Your task to perform on an android device: Go to location settings Image 0: 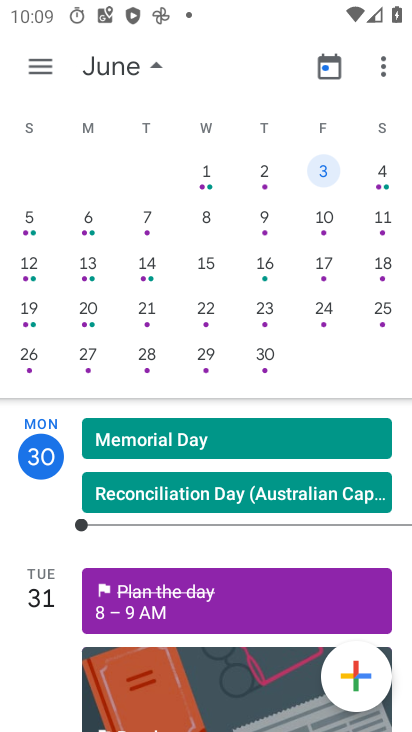
Step 0: press home button
Your task to perform on an android device: Go to location settings Image 1: 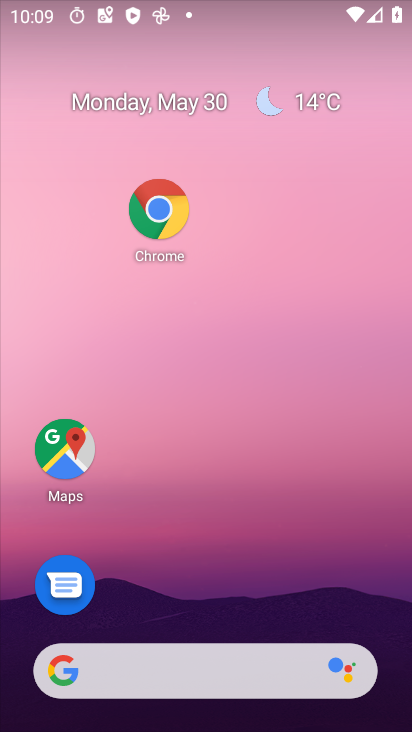
Step 1: drag from (221, 582) to (285, 97)
Your task to perform on an android device: Go to location settings Image 2: 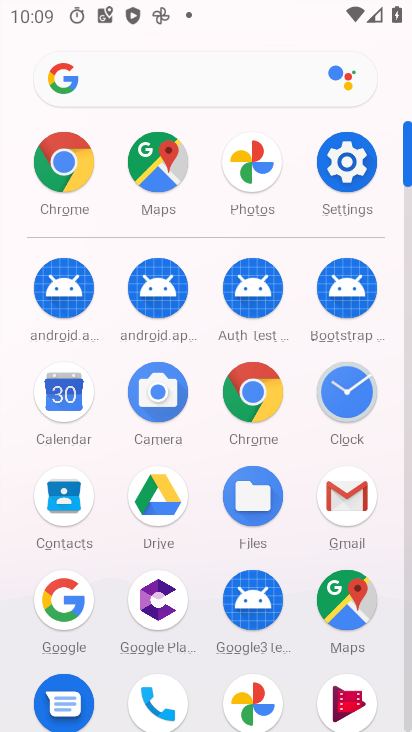
Step 2: click (342, 152)
Your task to perform on an android device: Go to location settings Image 3: 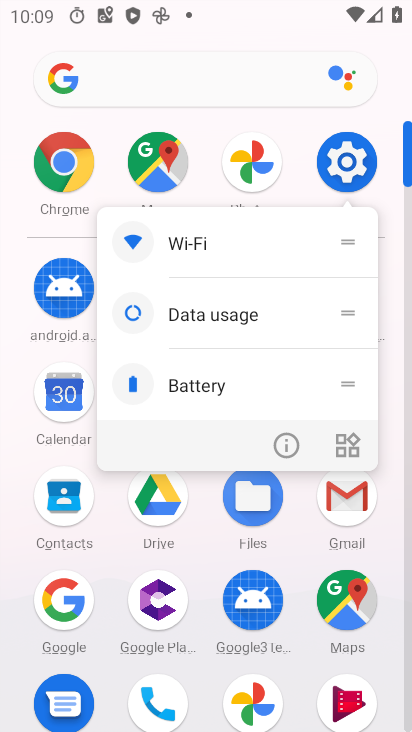
Step 3: click (292, 439)
Your task to perform on an android device: Go to location settings Image 4: 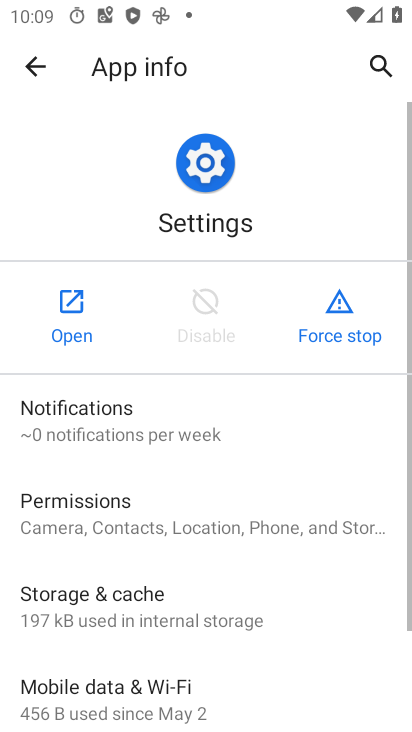
Step 4: click (40, 332)
Your task to perform on an android device: Go to location settings Image 5: 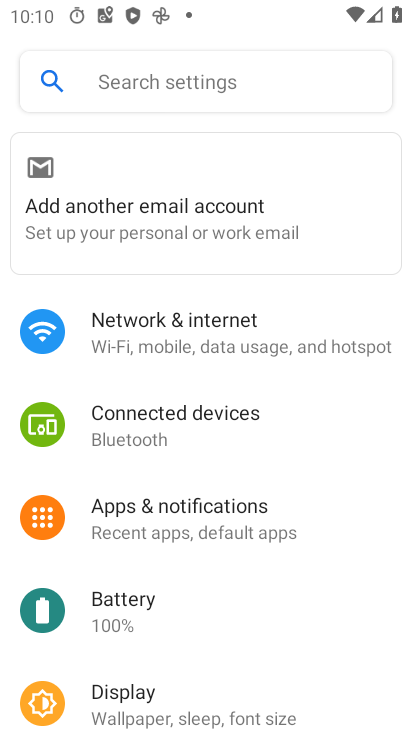
Step 5: drag from (208, 571) to (287, 173)
Your task to perform on an android device: Go to location settings Image 6: 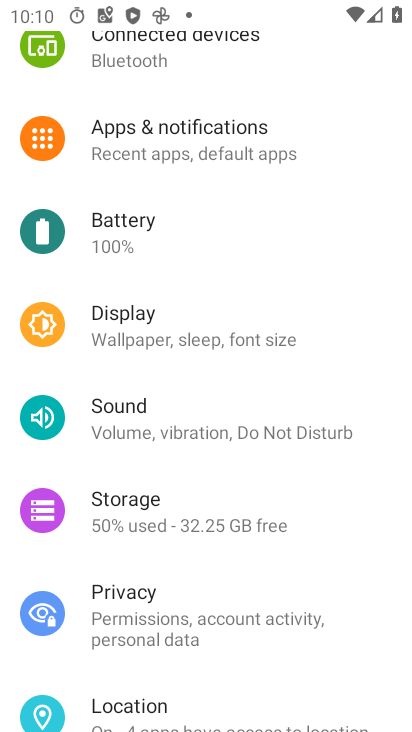
Step 6: click (166, 706)
Your task to perform on an android device: Go to location settings Image 7: 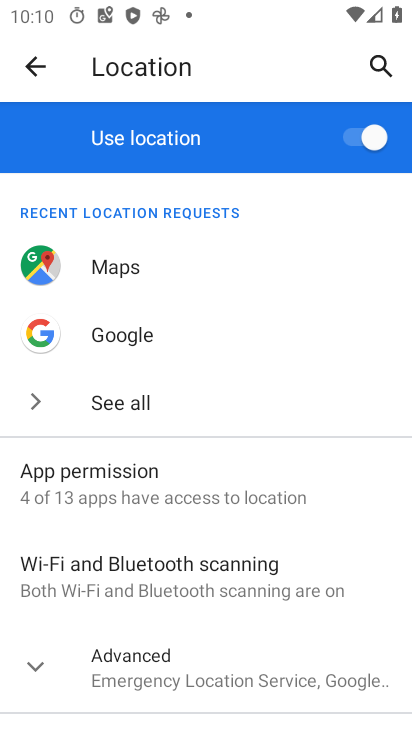
Step 7: task complete